Your task to perform on an android device: Open the phone app and click the voicemail tab. Image 0: 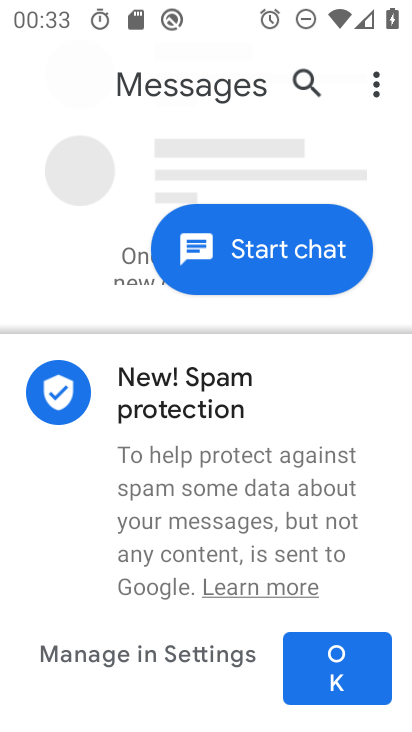
Step 0: press home button
Your task to perform on an android device: Open the phone app and click the voicemail tab. Image 1: 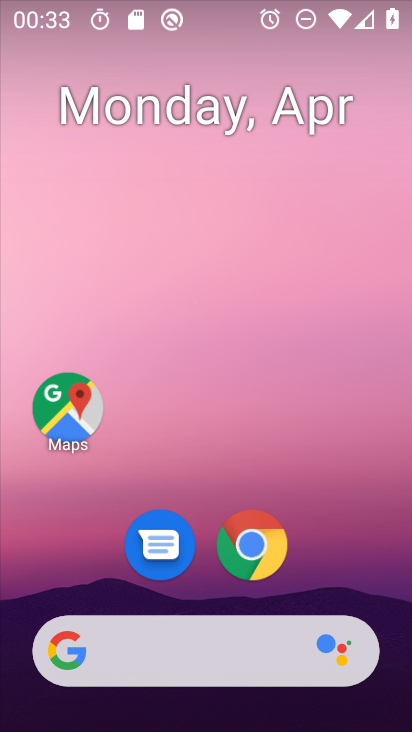
Step 1: drag from (355, 553) to (353, 168)
Your task to perform on an android device: Open the phone app and click the voicemail tab. Image 2: 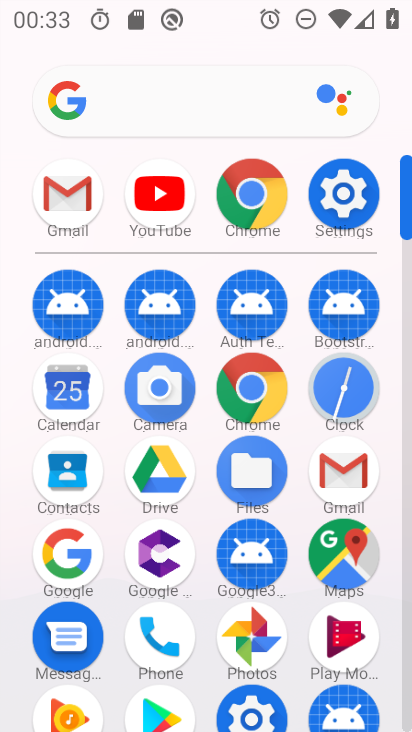
Step 2: click (160, 636)
Your task to perform on an android device: Open the phone app and click the voicemail tab. Image 3: 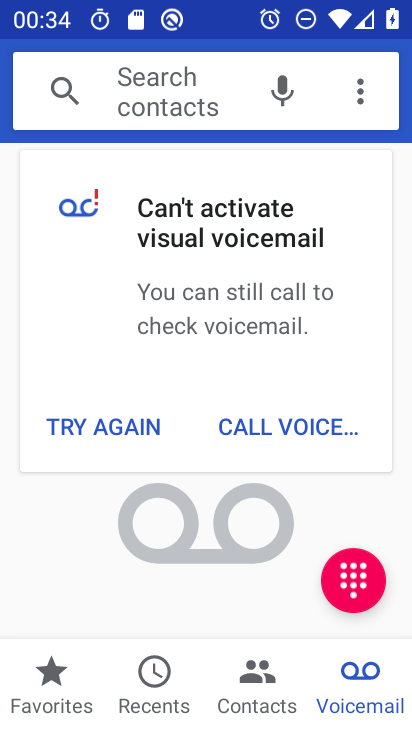
Step 3: click (341, 650)
Your task to perform on an android device: Open the phone app and click the voicemail tab. Image 4: 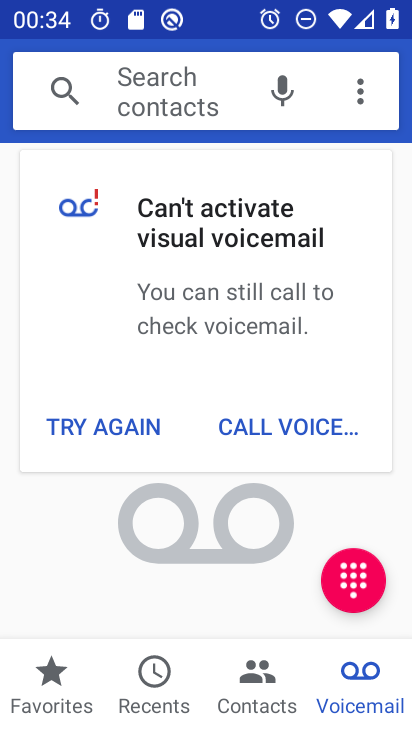
Step 4: task complete